Your task to perform on an android device: Open location settings Image 0: 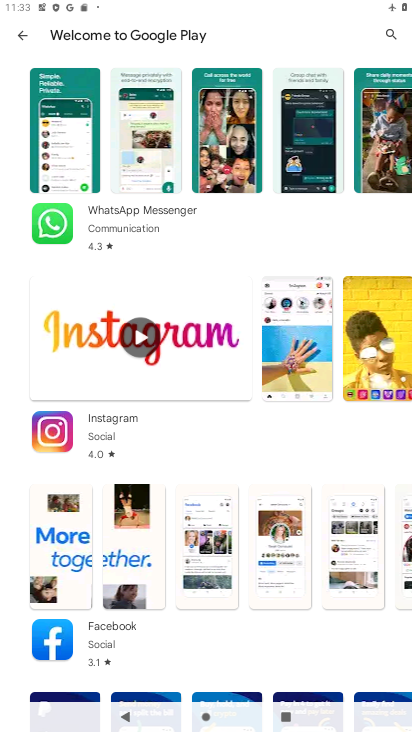
Step 0: press home button
Your task to perform on an android device: Open location settings Image 1: 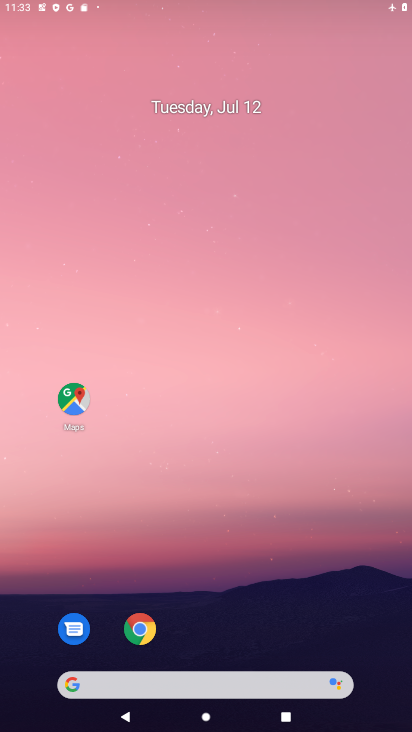
Step 1: drag from (211, 615) to (219, 193)
Your task to perform on an android device: Open location settings Image 2: 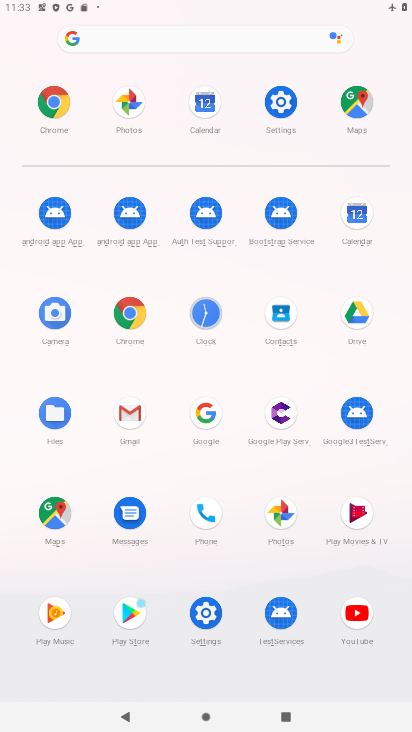
Step 2: click (270, 100)
Your task to perform on an android device: Open location settings Image 3: 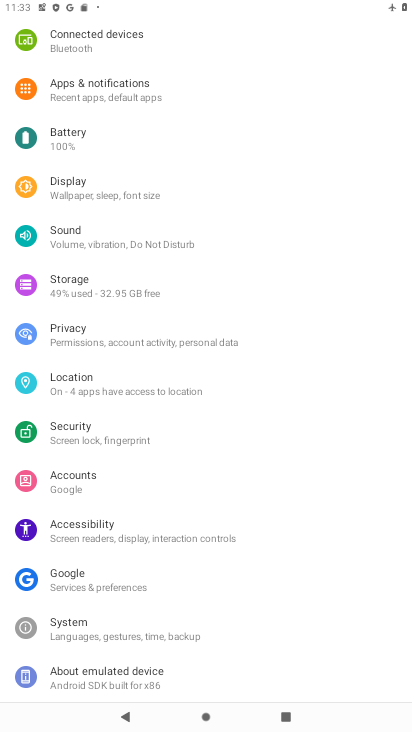
Step 3: click (121, 389)
Your task to perform on an android device: Open location settings Image 4: 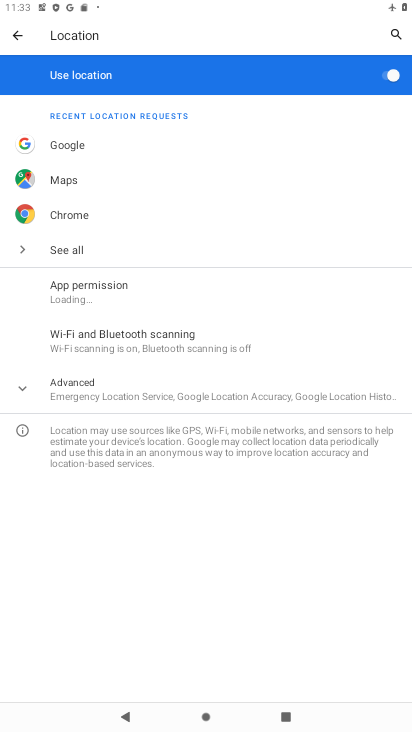
Step 4: click (121, 389)
Your task to perform on an android device: Open location settings Image 5: 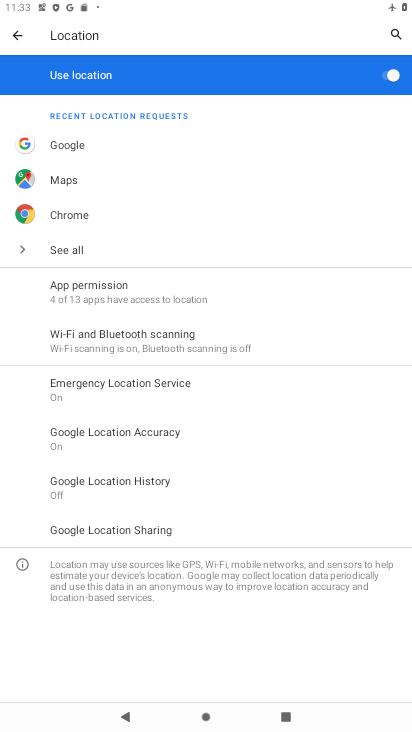
Step 5: task complete